Your task to perform on an android device: Go to eBay Image 0: 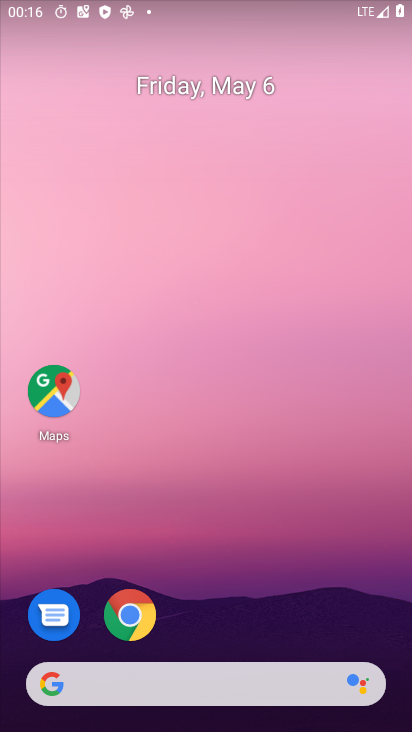
Step 0: drag from (254, 605) to (309, 97)
Your task to perform on an android device: Go to eBay Image 1: 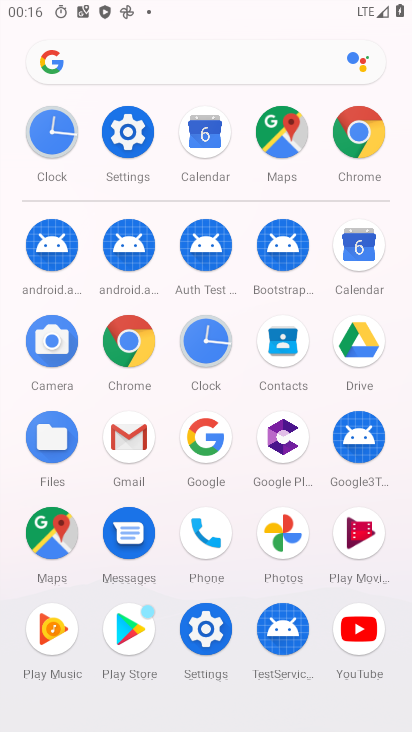
Step 1: click (209, 443)
Your task to perform on an android device: Go to eBay Image 2: 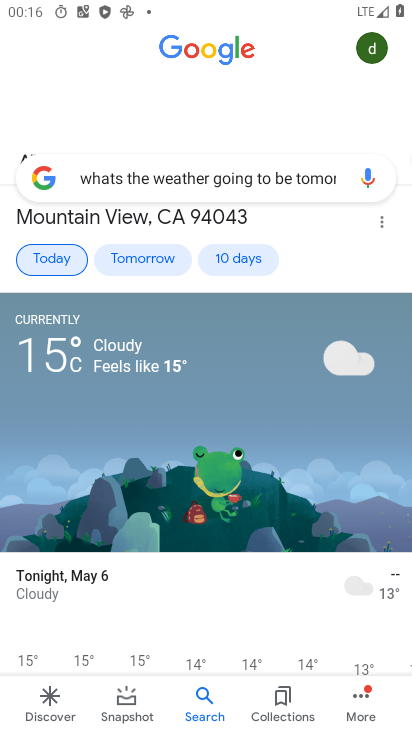
Step 2: click (326, 172)
Your task to perform on an android device: Go to eBay Image 3: 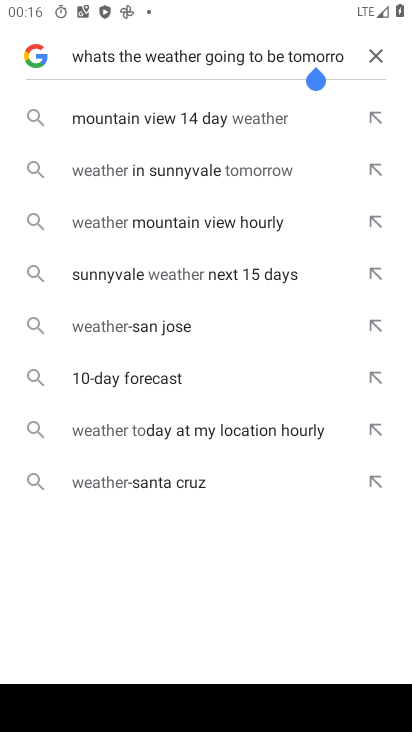
Step 3: click (374, 52)
Your task to perform on an android device: Go to eBay Image 4: 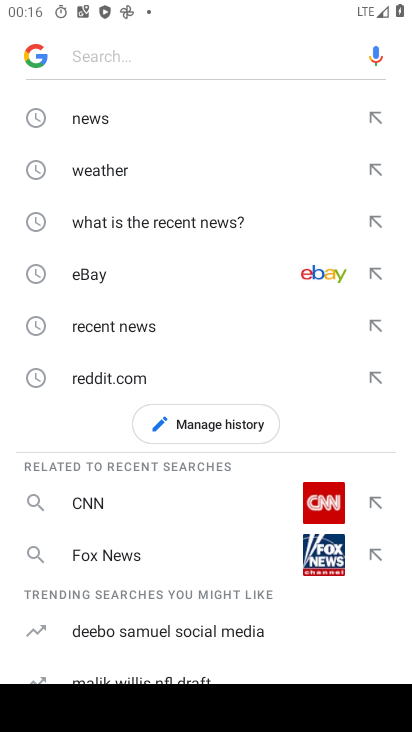
Step 4: click (112, 271)
Your task to perform on an android device: Go to eBay Image 5: 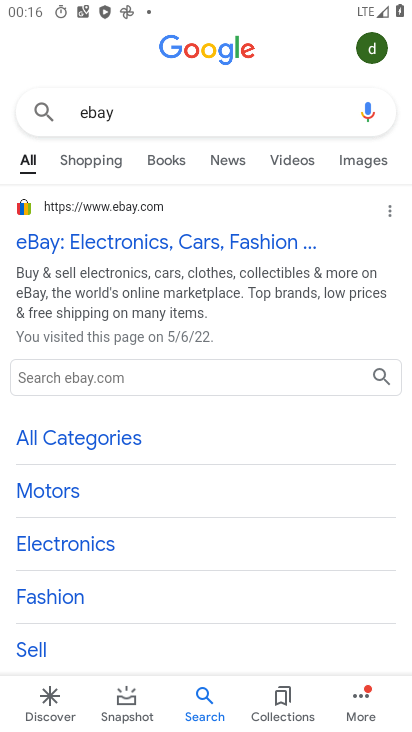
Step 5: task complete